Your task to perform on an android device: turn off location Image 0: 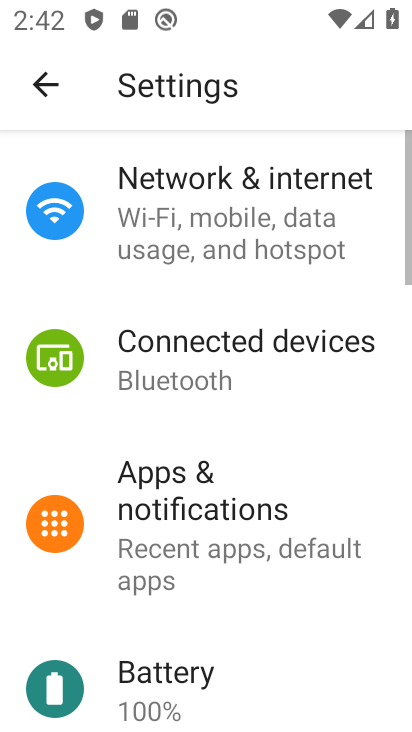
Step 0: drag from (269, 529) to (268, 45)
Your task to perform on an android device: turn off location Image 1: 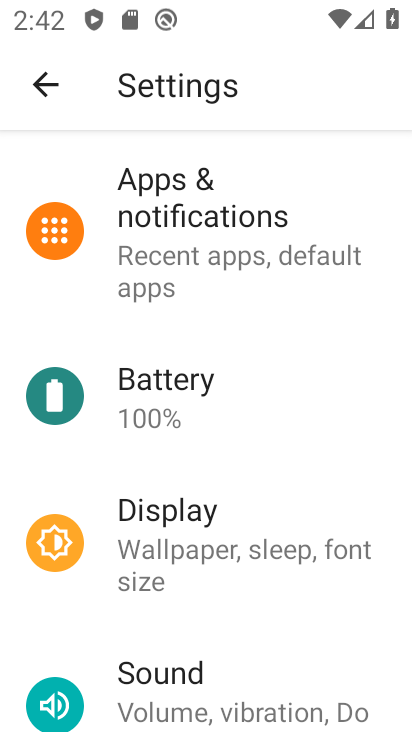
Step 1: drag from (215, 479) to (199, 17)
Your task to perform on an android device: turn off location Image 2: 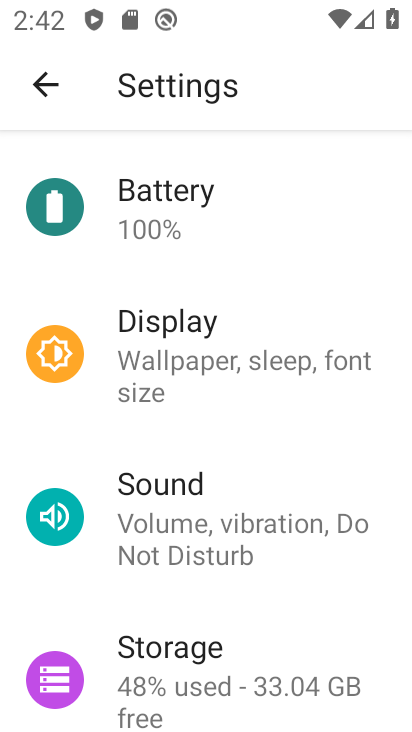
Step 2: drag from (303, 642) to (303, 65)
Your task to perform on an android device: turn off location Image 3: 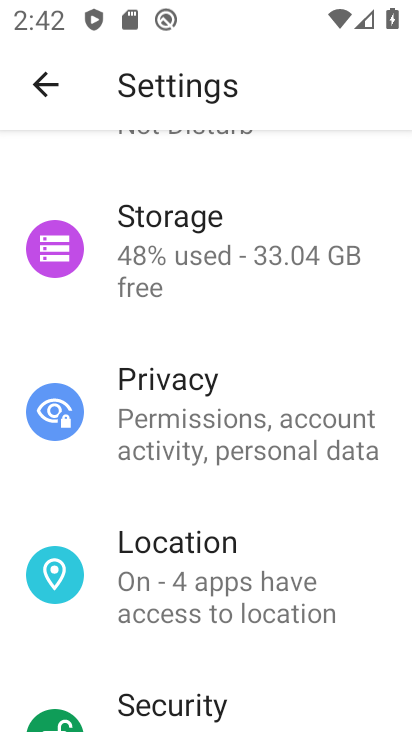
Step 3: click (270, 558)
Your task to perform on an android device: turn off location Image 4: 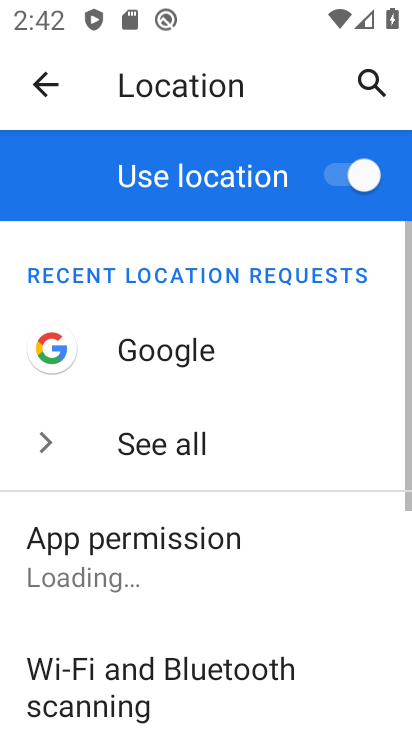
Step 4: click (344, 162)
Your task to perform on an android device: turn off location Image 5: 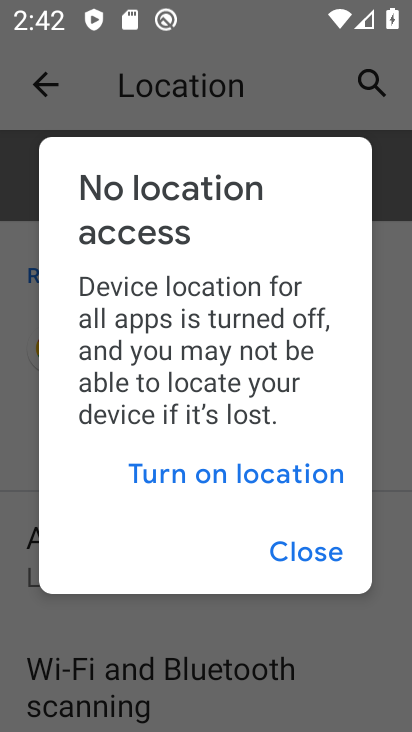
Step 5: task complete